Your task to perform on an android device: turn on location history Image 0: 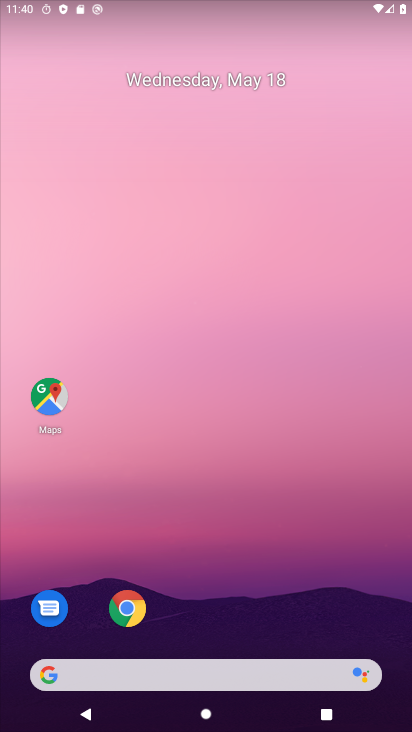
Step 0: click (54, 407)
Your task to perform on an android device: turn on location history Image 1: 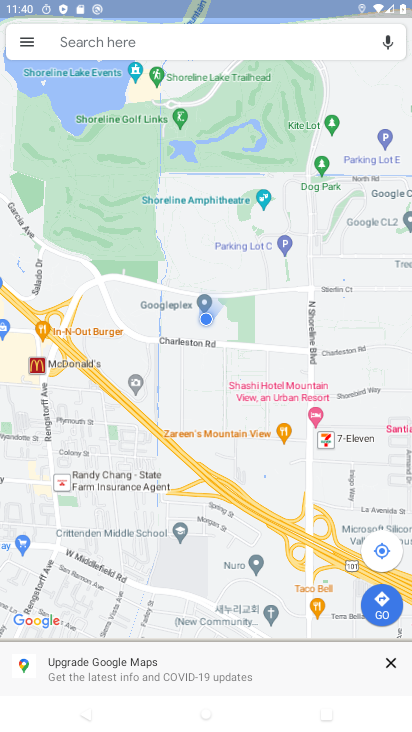
Step 1: click (25, 51)
Your task to perform on an android device: turn on location history Image 2: 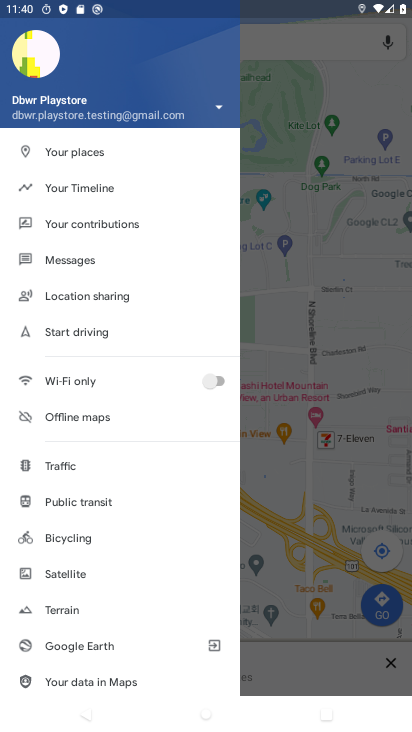
Step 2: click (77, 187)
Your task to perform on an android device: turn on location history Image 3: 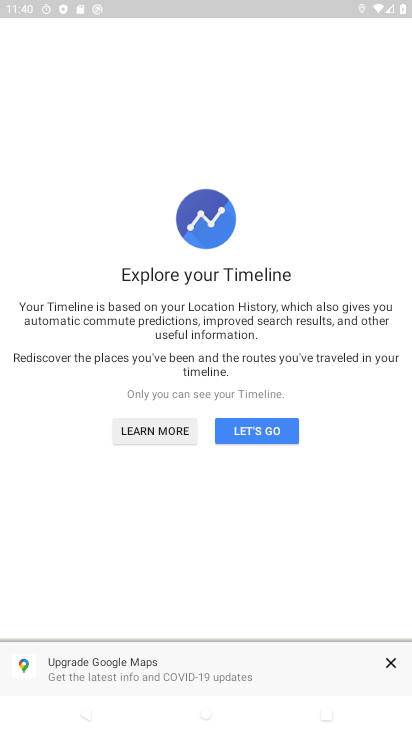
Step 3: click (280, 435)
Your task to perform on an android device: turn on location history Image 4: 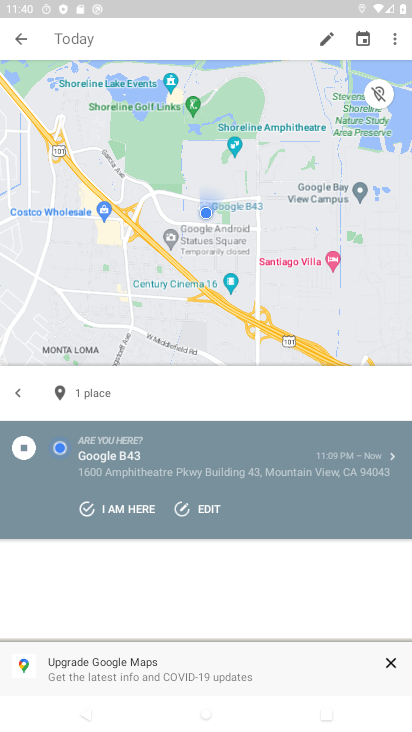
Step 4: click (393, 42)
Your task to perform on an android device: turn on location history Image 5: 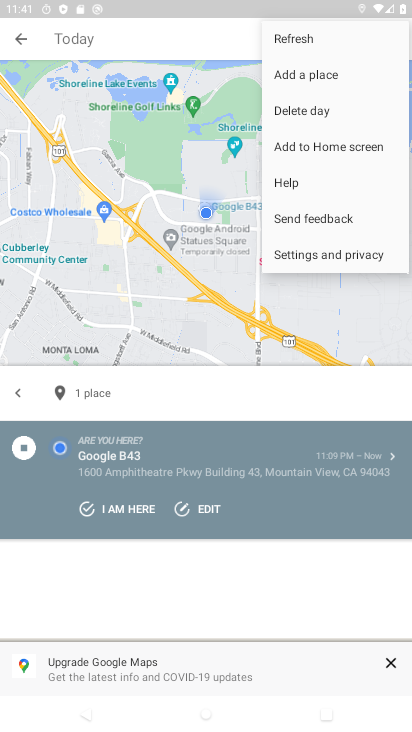
Step 5: click (350, 251)
Your task to perform on an android device: turn on location history Image 6: 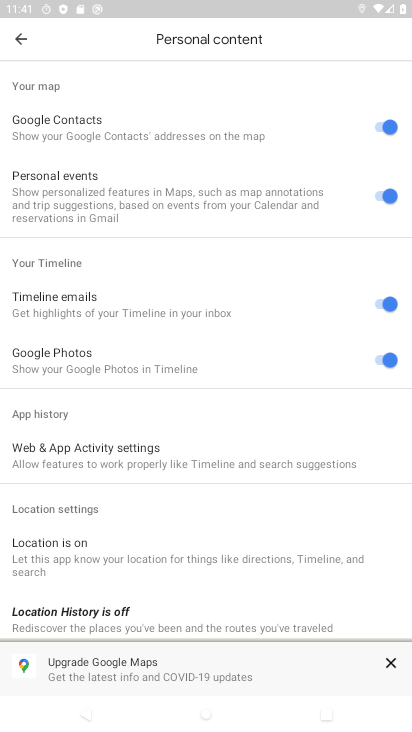
Step 6: click (392, 660)
Your task to perform on an android device: turn on location history Image 7: 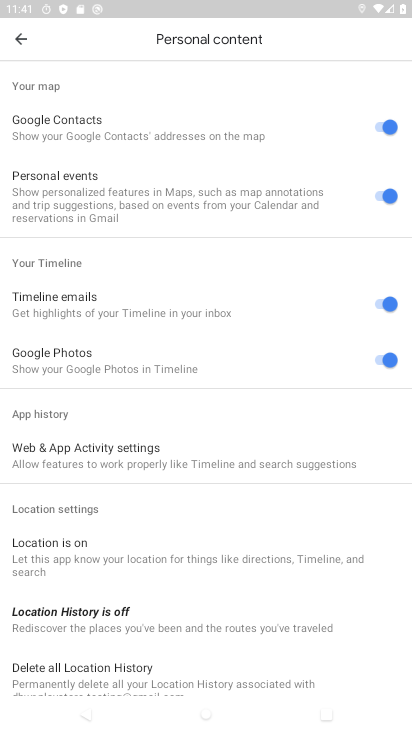
Step 7: drag from (298, 660) to (322, 330)
Your task to perform on an android device: turn on location history Image 8: 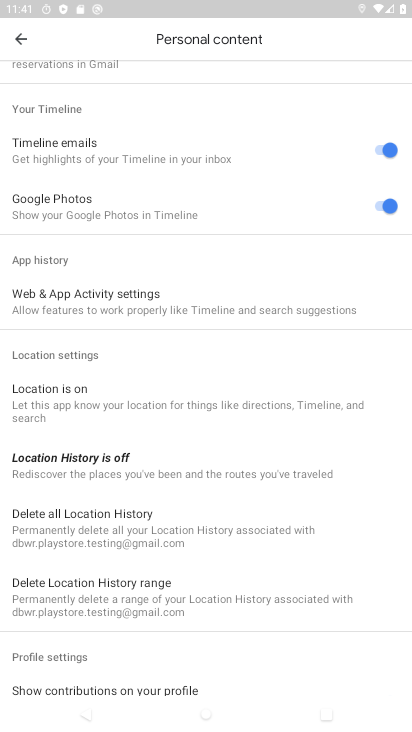
Step 8: click (304, 464)
Your task to perform on an android device: turn on location history Image 9: 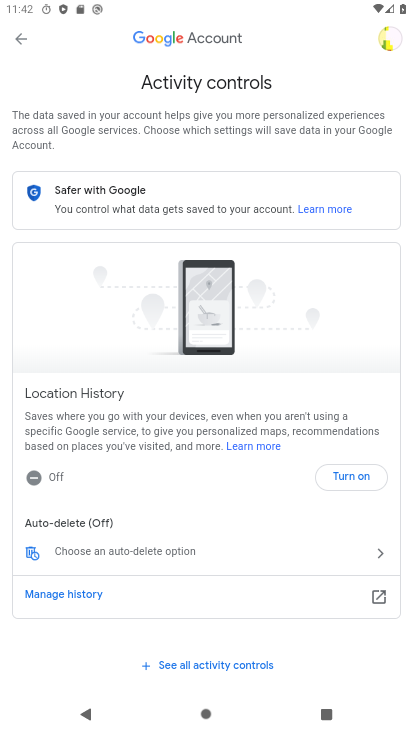
Step 9: click (354, 482)
Your task to perform on an android device: turn on location history Image 10: 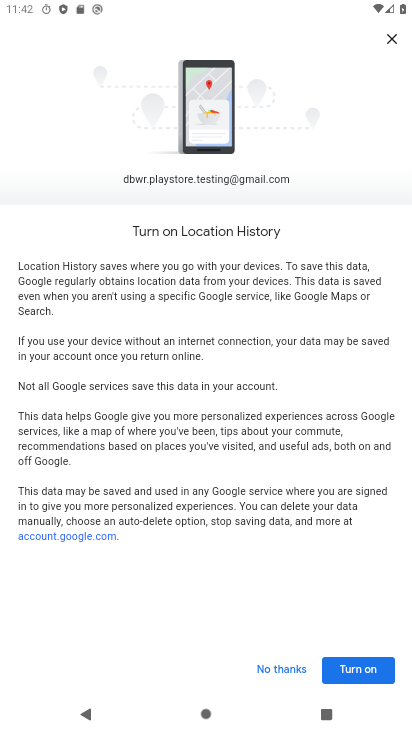
Step 10: click (357, 674)
Your task to perform on an android device: turn on location history Image 11: 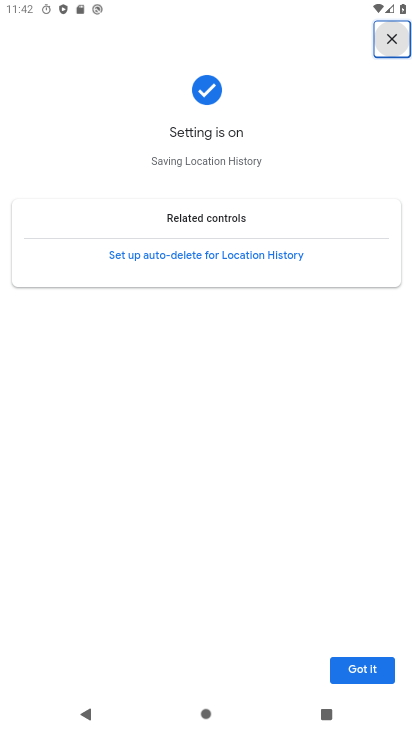
Step 11: click (357, 674)
Your task to perform on an android device: turn on location history Image 12: 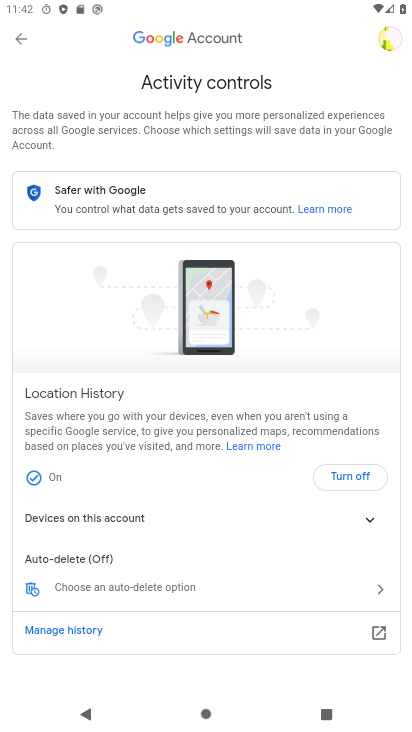
Step 12: task complete